Your task to perform on an android device: toggle wifi Image 0: 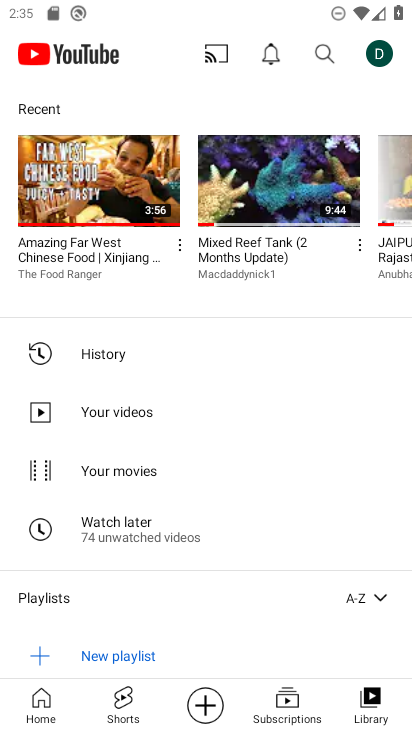
Step 0: press home button
Your task to perform on an android device: toggle wifi Image 1: 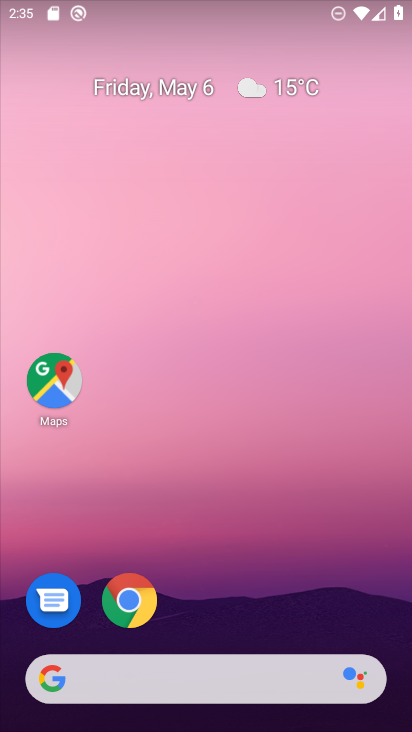
Step 1: drag from (264, 584) to (220, 101)
Your task to perform on an android device: toggle wifi Image 2: 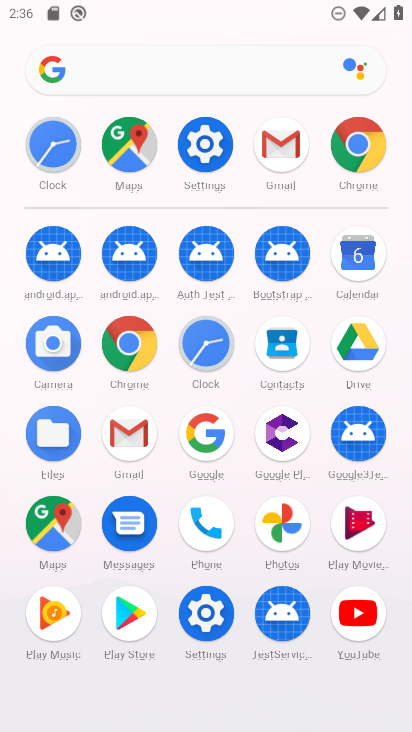
Step 2: drag from (171, 1) to (248, 499)
Your task to perform on an android device: toggle wifi Image 3: 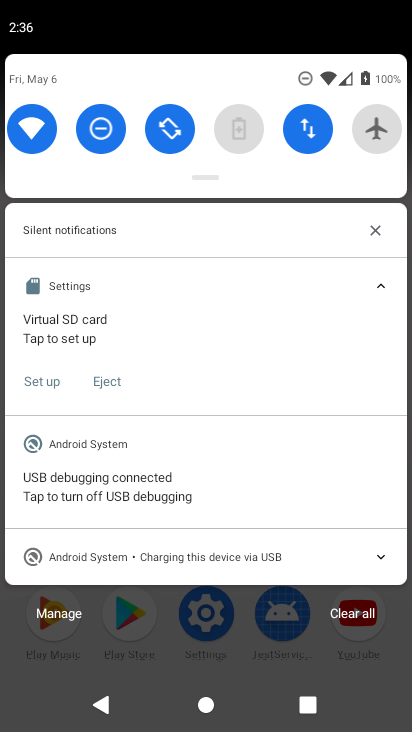
Step 3: click (39, 132)
Your task to perform on an android device: toggle wifi Image 4: 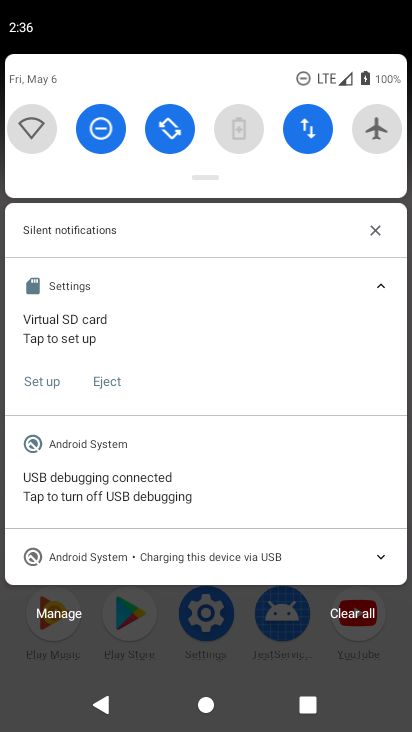
Step 4: task complete